Your task to perform on an android device: choose inbox layout in the gmail app Image 0: 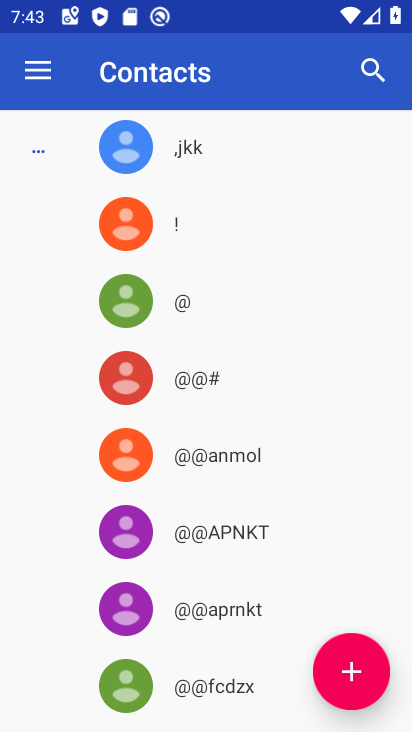
Step 0: press home button
Your task to perform on an android device: choose inbox layout in the gmail app Image 1: 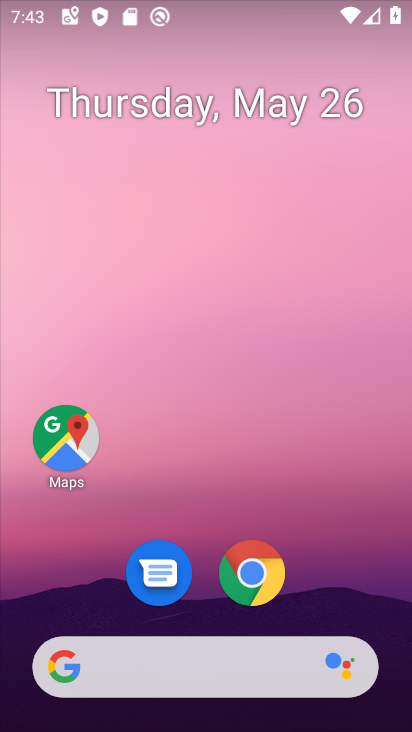
Step 1: drag from (238, 604) to (342, 4)
Your task to perform on an android device: choose inbox layout in the gmail app Image 2: 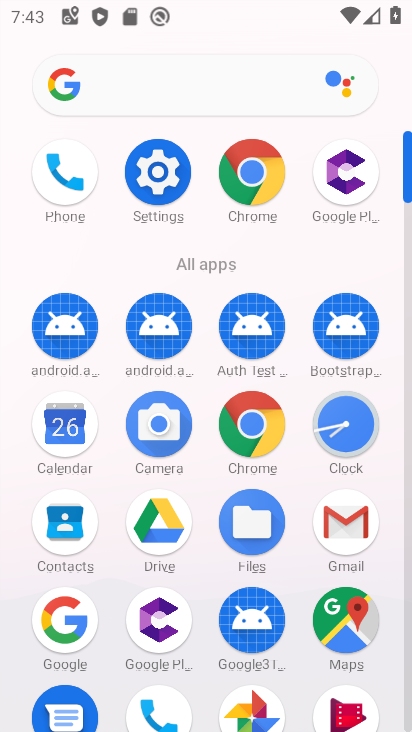
Step 2: click (347, 541)
Your task to perform on an android device: choose inbox layout in the gmail app Image 3: 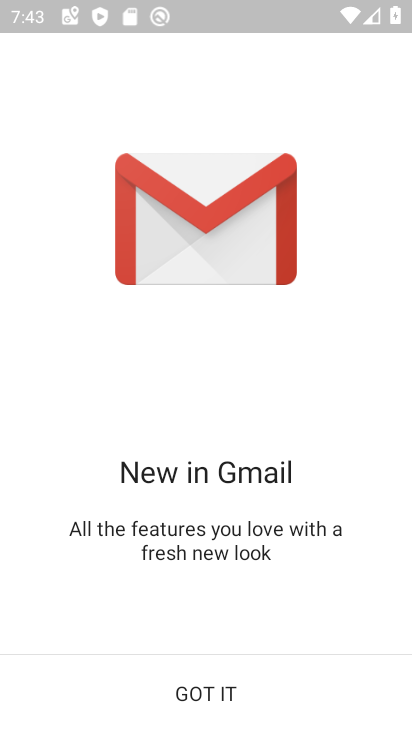
Step 3: click (154, 674)
Your task to perform on an android device: choose inbox layout in the gmail app Image 4: 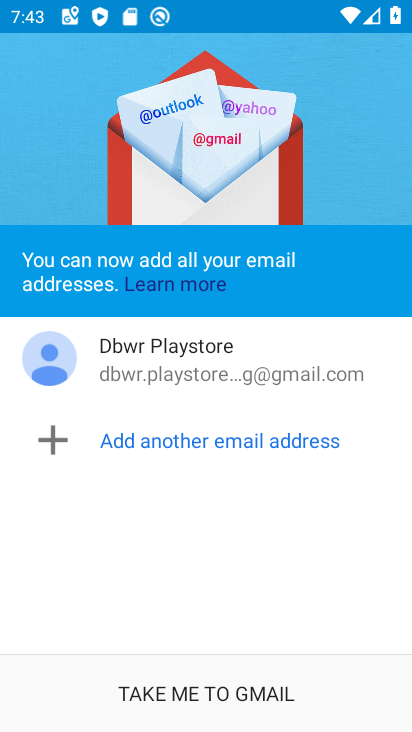
Step 4: click (308, 696)
Your task to perform on an android device: choose inbox layout in the gmail app Image 5: 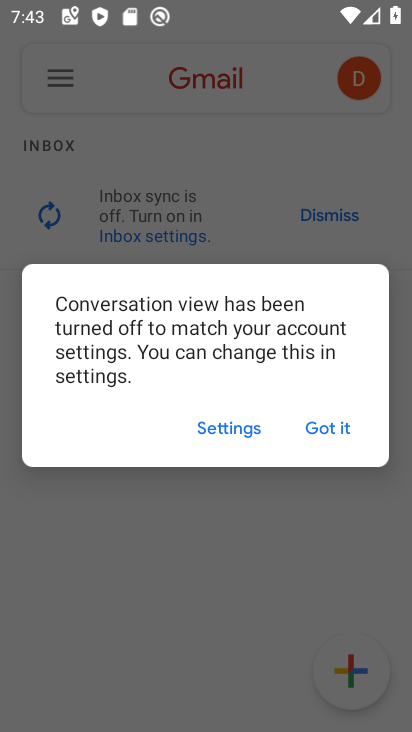
Step 5: click (328, 428)
Your task to perform on an android device: choose inbox layout in the gmail app Image 6: 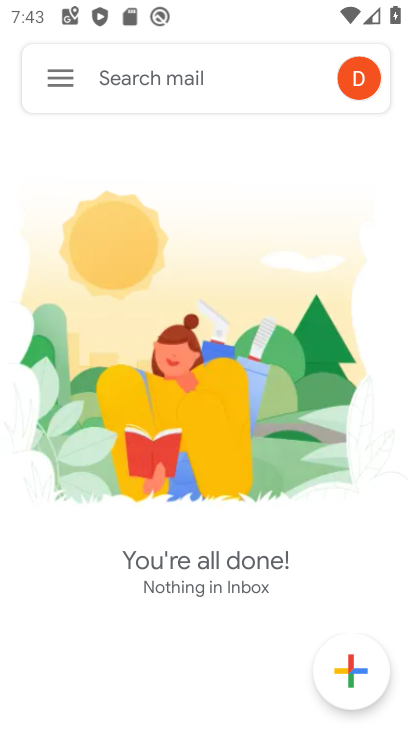
Step 6: click (48, 88)
Your task to perform on an android device: choose inbox layout in the gmail app Image 7: 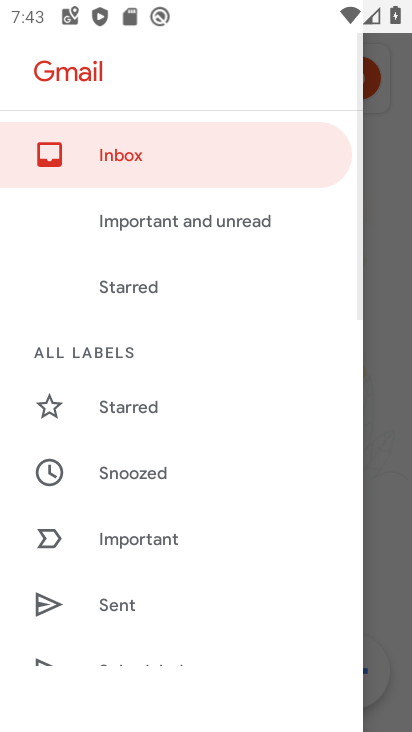
Step 7: drag from (75, 512) to (66, 573)
Your task to perform on an android device: choose inbox layout in the gmail app Image 8: 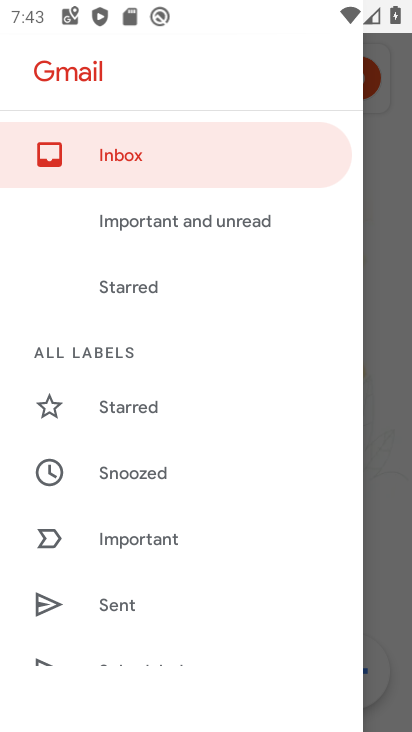
Step 8: click (137, 144)
Your task to perform on an android device: choose inbox layout in the gmail app Image 9: 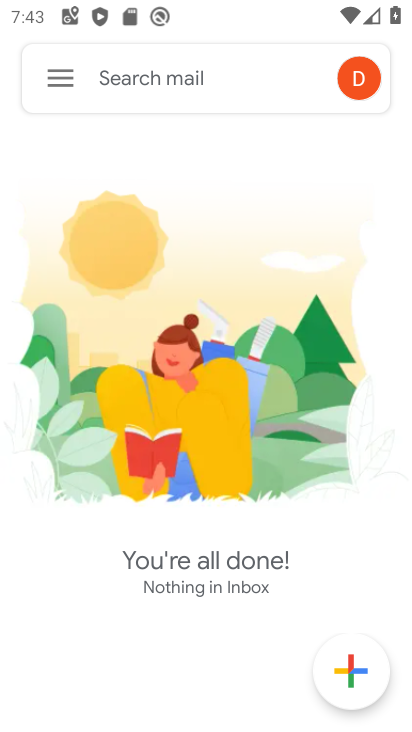
Step 9: task complete